Your task to perform on an android device: move a message to another label in the gmail app Image 0: 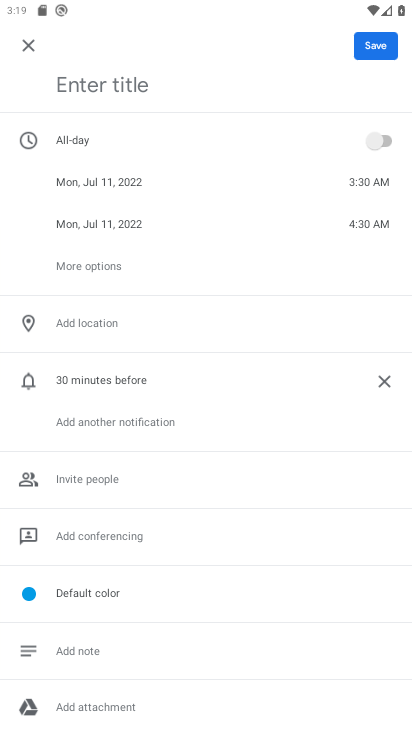
Step 0: press home button
Your task to perform on an android device: move a message to another label in the gmail app Image 1: 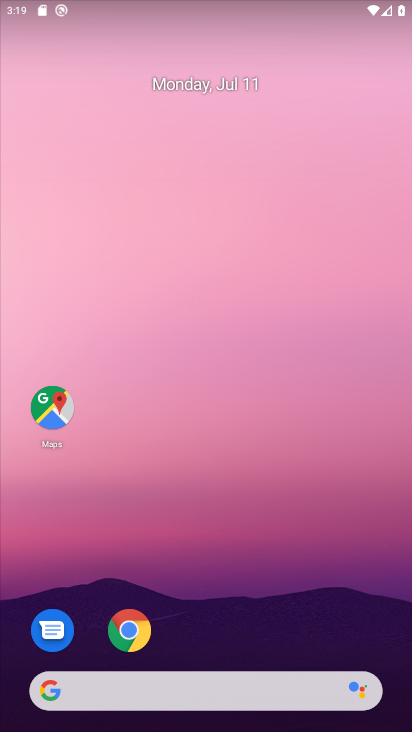
Step 1: drag from (266, 649) to (179, 167)
Your task to perform on an android device: move a message to another label in the gmail app Image 2: 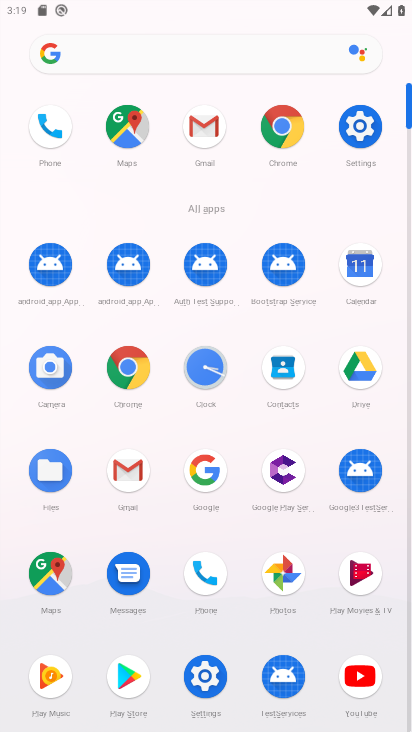
Step 2: click (205, 146)
Your task to perform on an android device: move a message to another label in the gmail app Image 3: 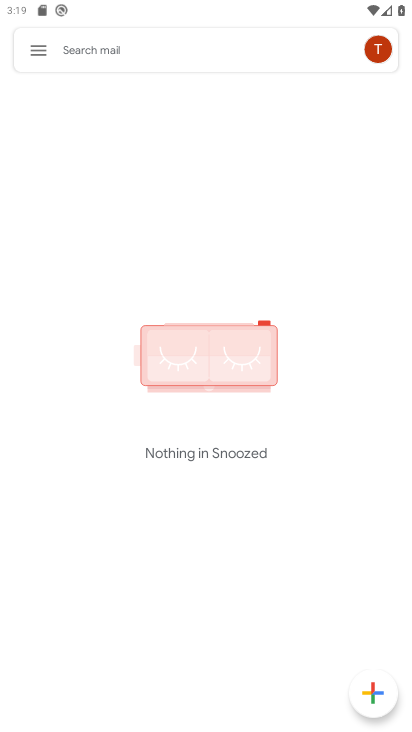
Step 3: click (29, 43)
Your task to perform on an android device: move a message to another label in the gmail app Image 4: 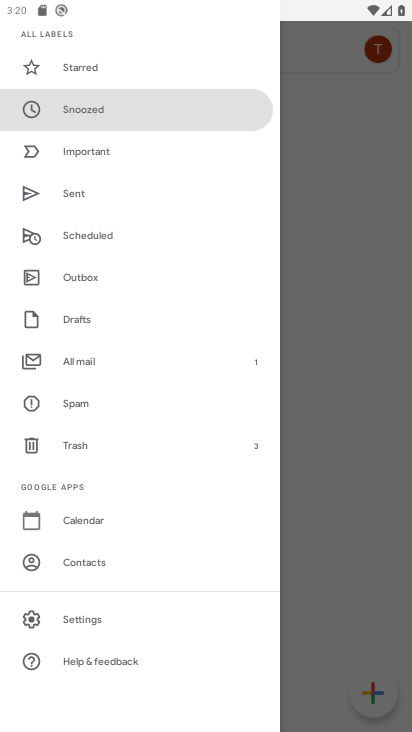
Step 4: drag from (56, 266) to (63, 299)
Your task to perform on an android device: move a message to another label in the gmail app Image 5: 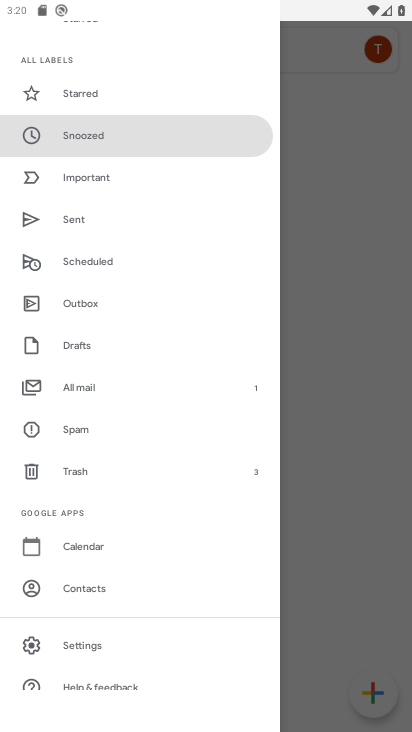
Step 5: click (89, 390)
Your task to perform on an android device: move a message to another label in the gmail app Image 6: 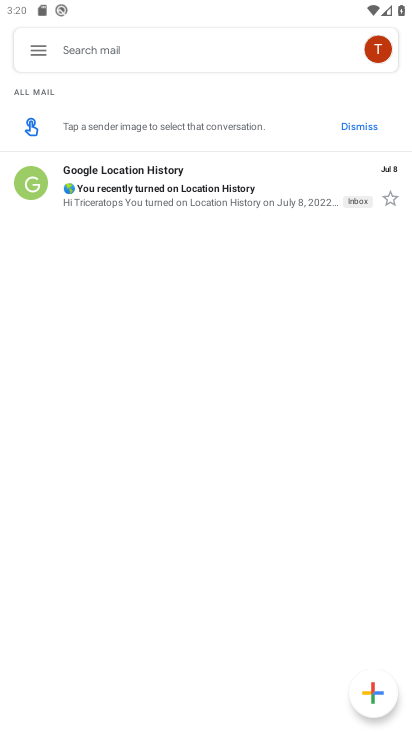
Step 6: click (214, 198)
Your task to perform on an android device: move a message to another label in the gmail app Image 7: 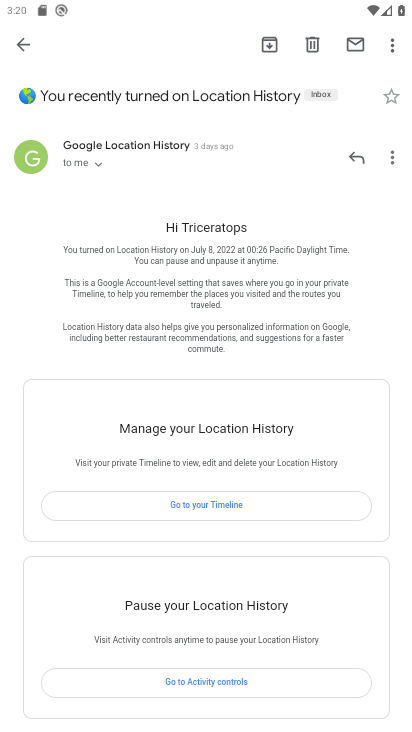
Step 7: click (394, 47)
Your task to perform on an android device: move a message to another label in the gmail app Image 8: 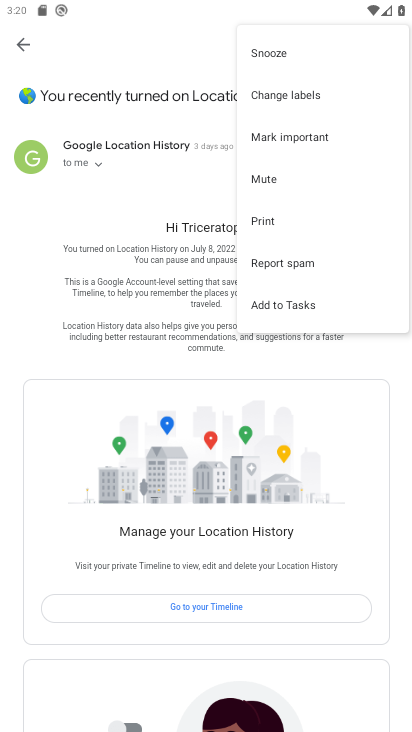
Step 8: click (281, 95)
Your task to perform on an android device: move a message to another label in the gmail app Image 9: 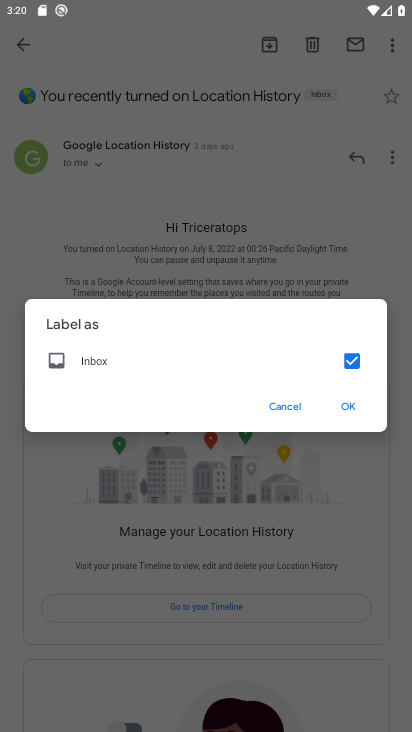
Step 9: click (348, 407)
Your task to perform on an android device: move a message to another label in the gmail app Image 10: 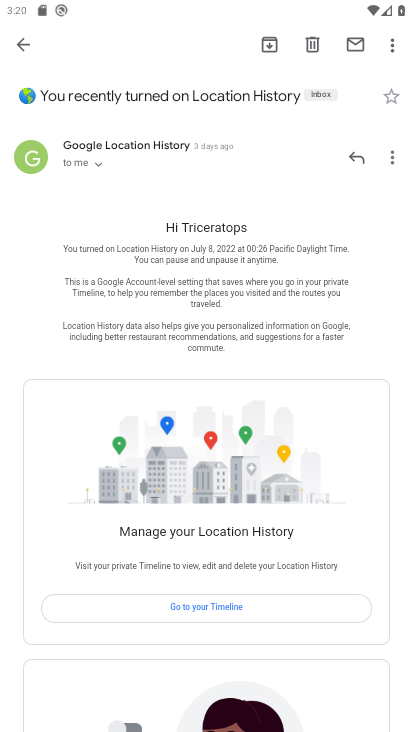
Step 10: task complete